Your task to perform on an android device: Go to Amazon Image 0: 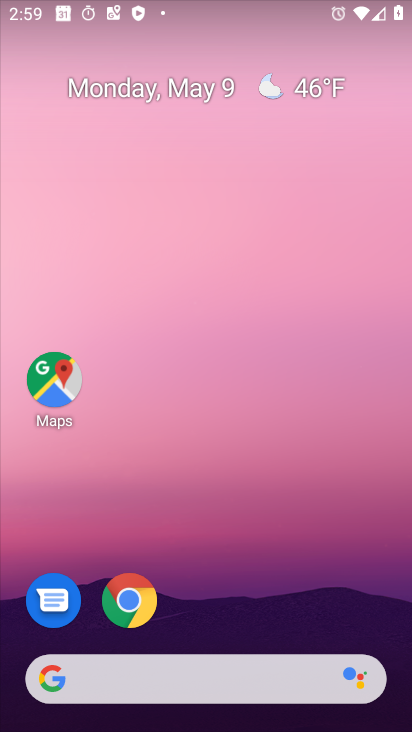
Step 0: click (139, 595)
Your task to perform on an android device: Go to Amazon Image 1: 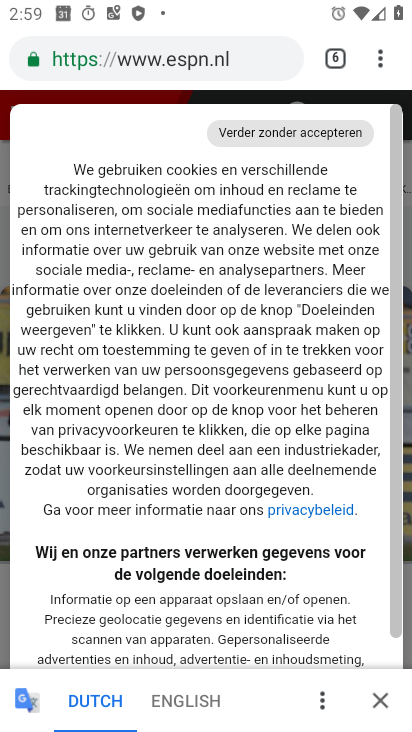
Step 1: click (339, 60)
Your task to perform on an android device: Go to Amazon Image 2: 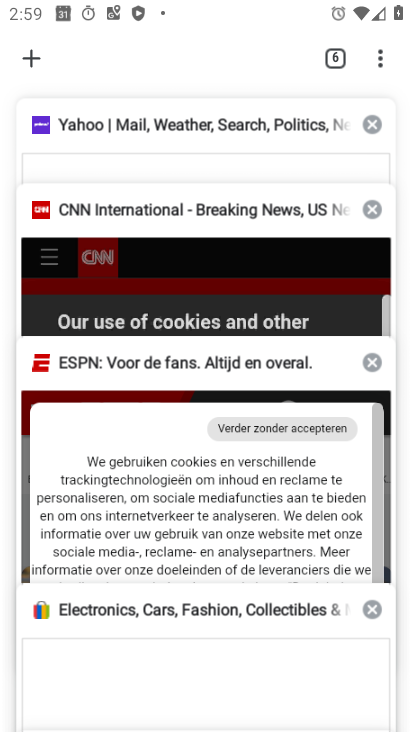
Step 2: drag from (202, 250) to (104, 626)
Your task to perform on an android device: Go to Amazon Image 3: 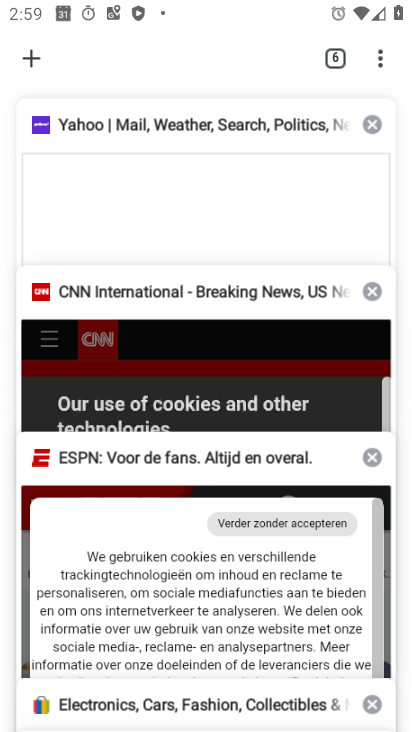
Step 3: drag from (174, 203) to (79, 673)
Your task to perform on an android device: Go to Amazon Image 4: 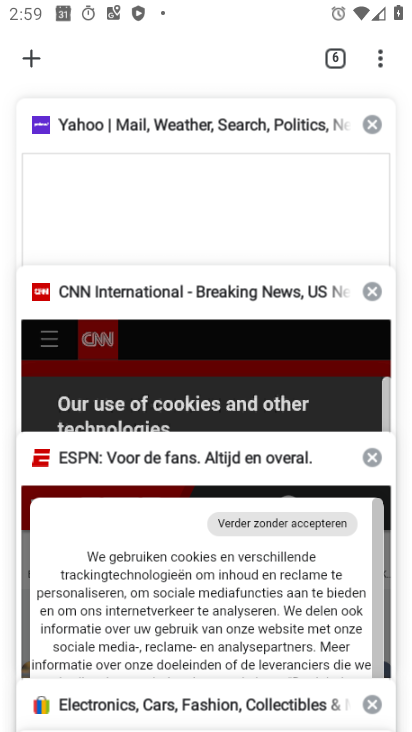
Step 4: click (28, 56)
Your task to perform on an android device: Go to Amazon Image 5: 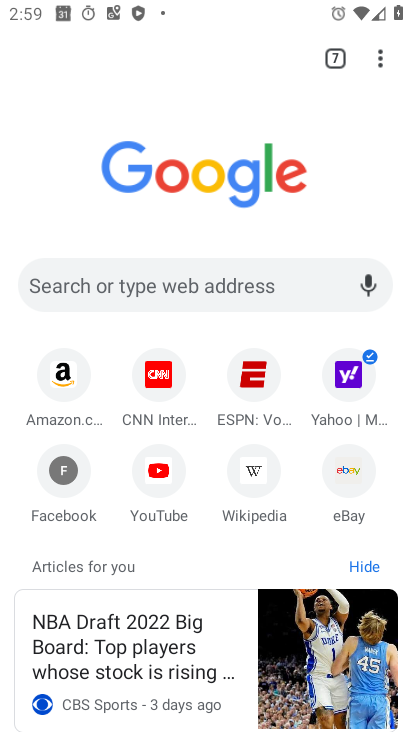
Step 5: click (71, 371)
Your task to perform on an android device: Go to Amazon Image 6: 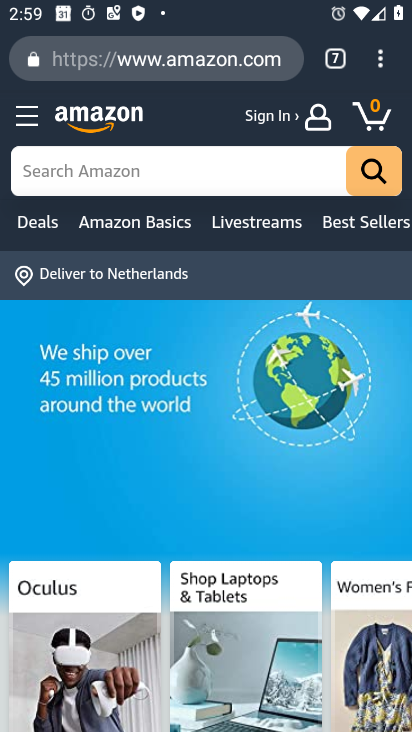
Step 6: task complete